Your task to perform on an android device: change alarm snooze length Image 0: 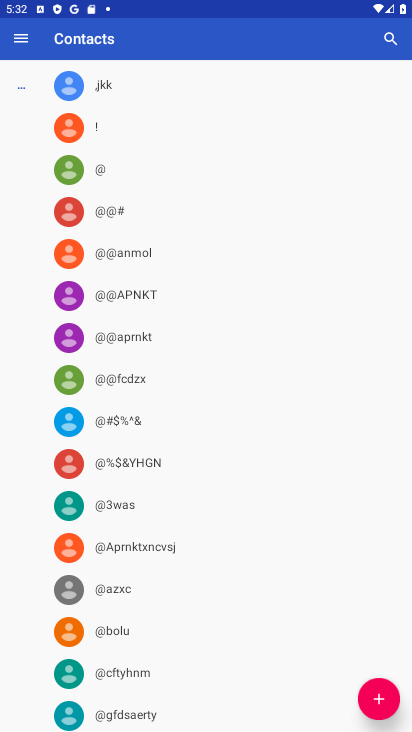
Step 0: click (55, 526)
Your task to perform on an android device: change alarm snooze length Image 1: 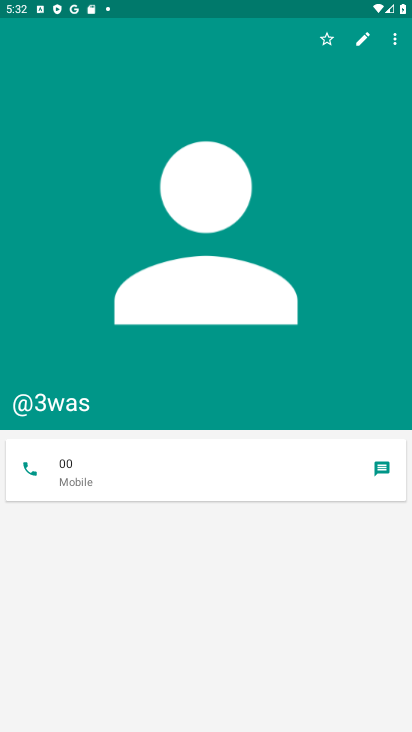
Step 1: press home button
Your task to perform on an android device: change alarm snooze length Image 2: 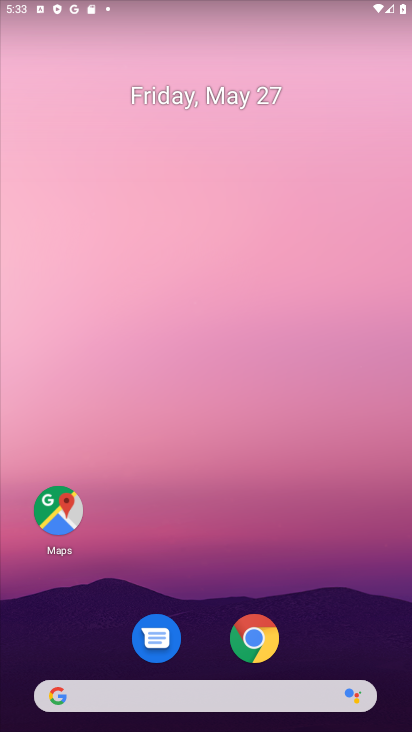
Step 2: drag from (192, 636) to (382, 89)
Your task to perform on an android device: change alarm snooze length Image 3: 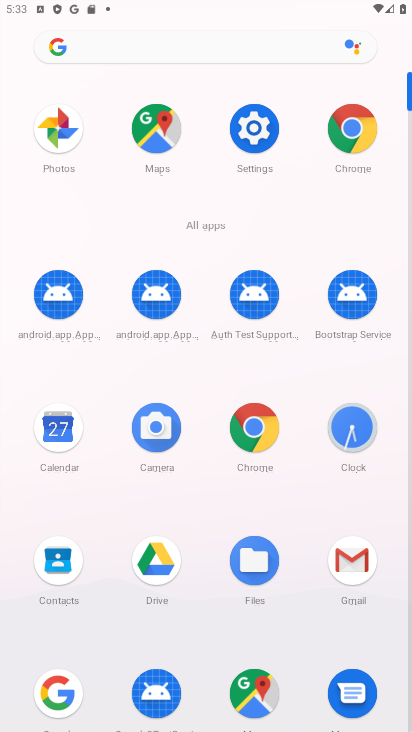
Step 3: click (347, 425)
Your task to perform on an android device: change alarm snooze length Image 4: 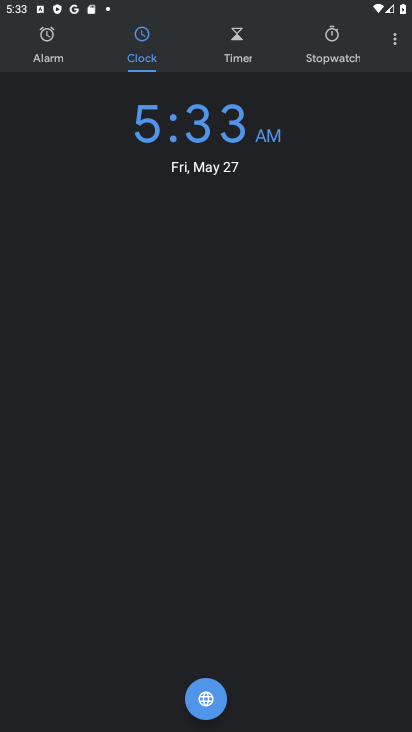
Step 4: click (386, 41)
Your task to perform on an android device: change alarm snooze length Image 5: 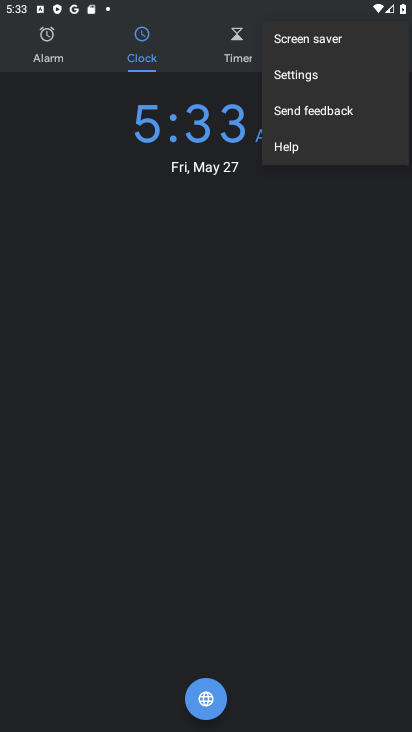
Step 5: click (341, 74)
Your task to perform on an android device: change alarm snooze length Image 6: 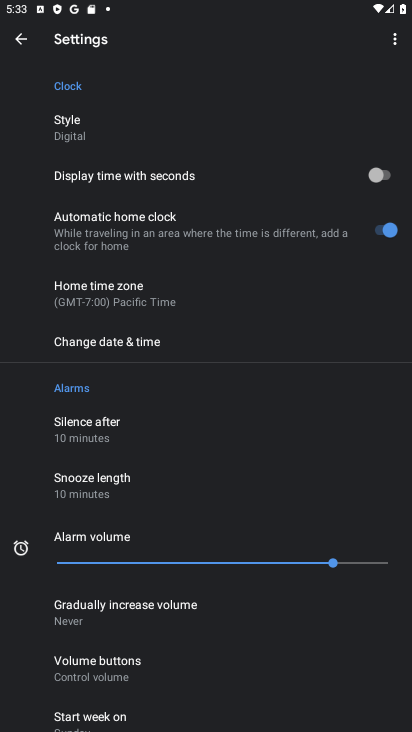
Step 6: click (95, 494)
Your task to perform on an android device: change alarm snooze length Image 7: 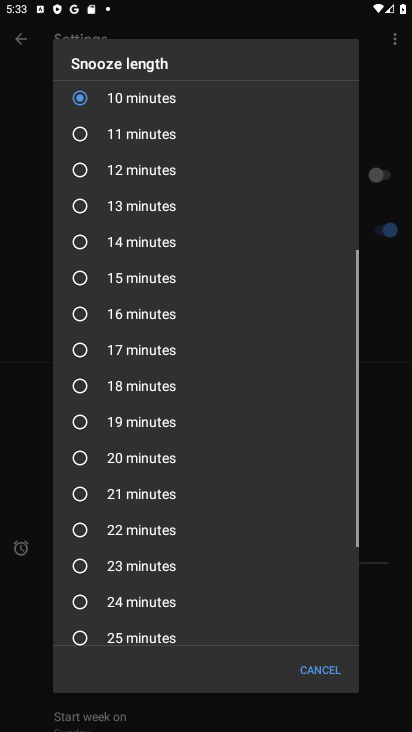
Step 7: click (95, 494)
Your task to perform on an android device: change alarm snooze length Image 8: 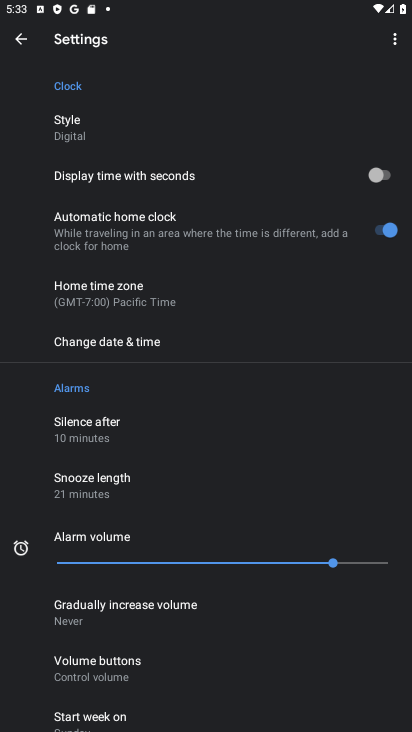
Step 8: task complete